Your task to perform on an android device: turn off improve location accuracy Image 0: 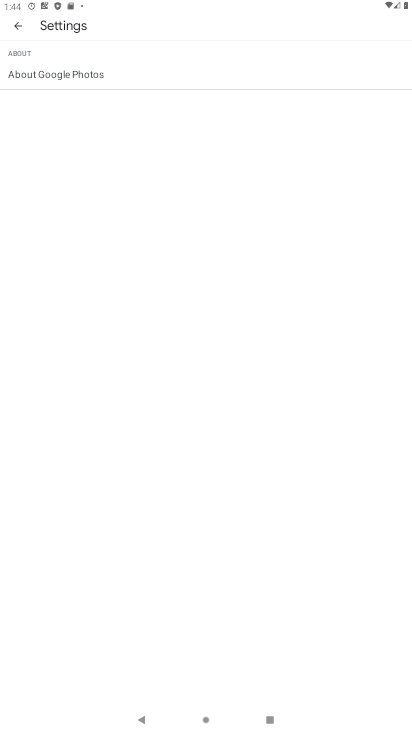
Step 0: press back button
Your task to perform on an android device: turn off improve location accuracy Image 1: 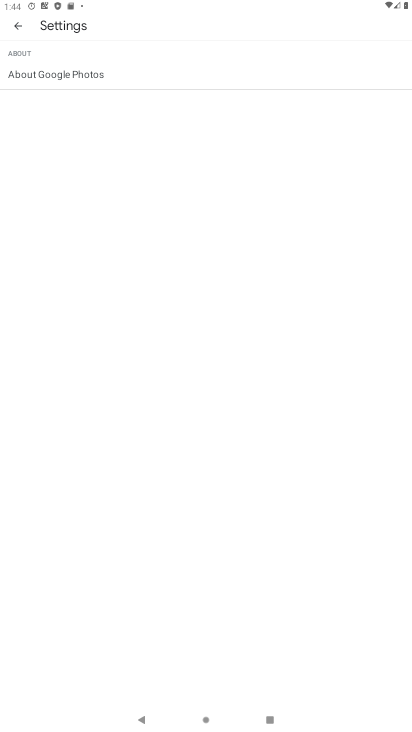
Step 1: press home button
Your task to perform on an android device: turn off improve location accuracy Image 2: 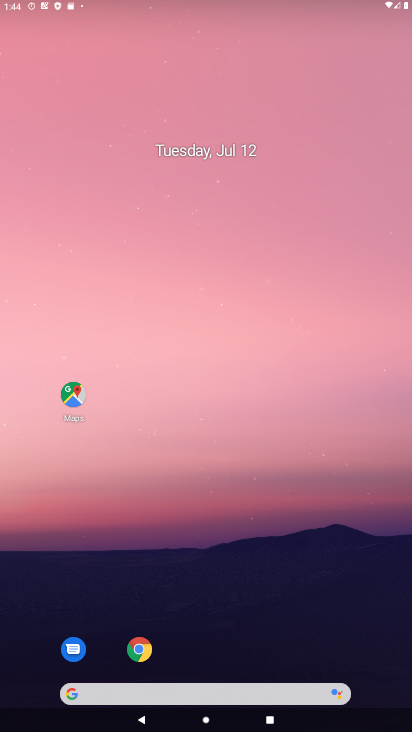
Step 2: drag from (369, 675) to (271, 4)
Your task to perform on an android device: turn off improve location accuracy Image 3: 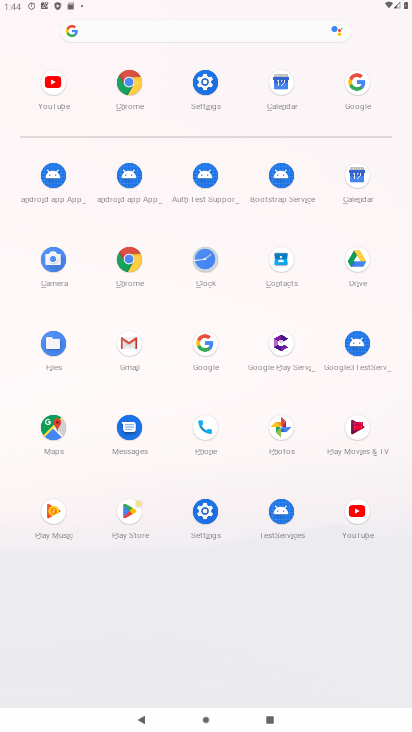
Step 3: click (202, 94)
Your task to perform on an android device: turn off improve location accuracy Image 4: 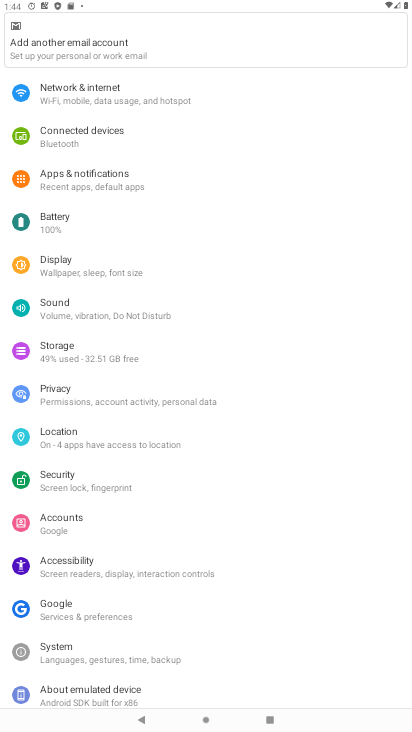
Step 4: click (76, 430)
Your task to perform on an android device: turn off improve location accuracy Image 5: 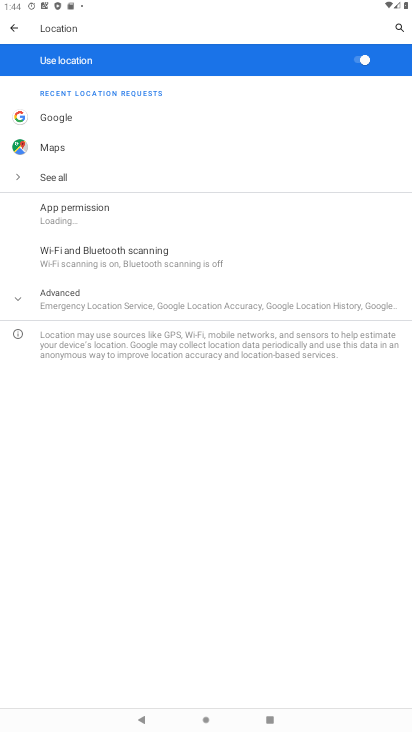
Step 5: click (74, 289)
Your task to perform on an android device: turn off improve location accuracy Image 6: 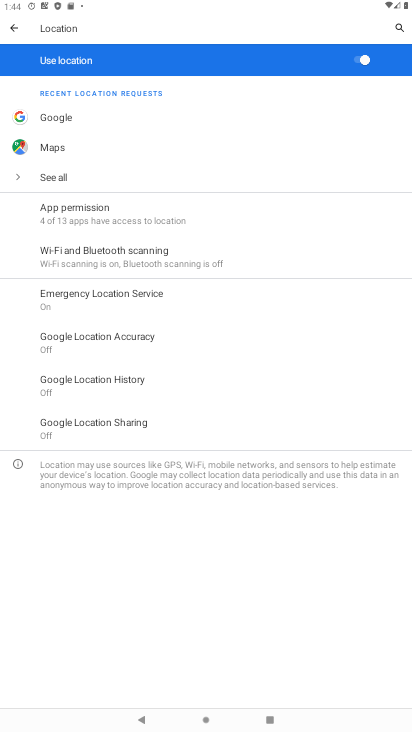
Step 6: click (74, 346)
Your task to perform on an android device: turn off improve location accuracy Image 7: 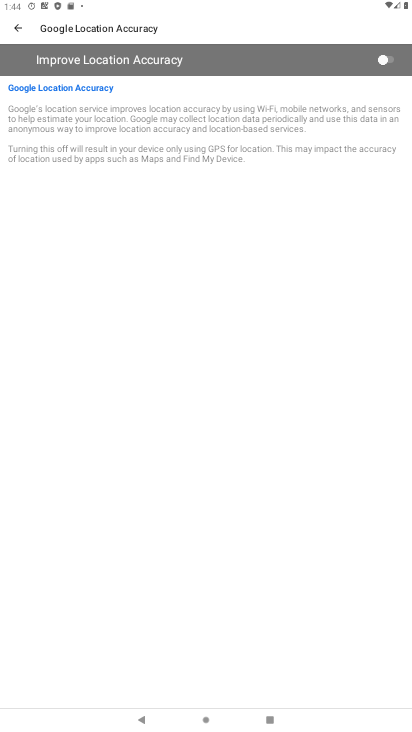
Step 7: task complete